Your task to perform on an android device: turn on wifi Image 0: 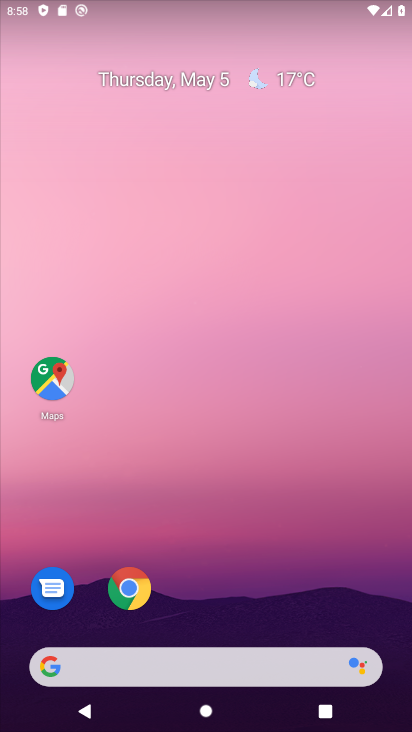
Step 0: drag from (225, 604) to (220, 276)
Your task to perform on an android device: turn on wifi Image 1: 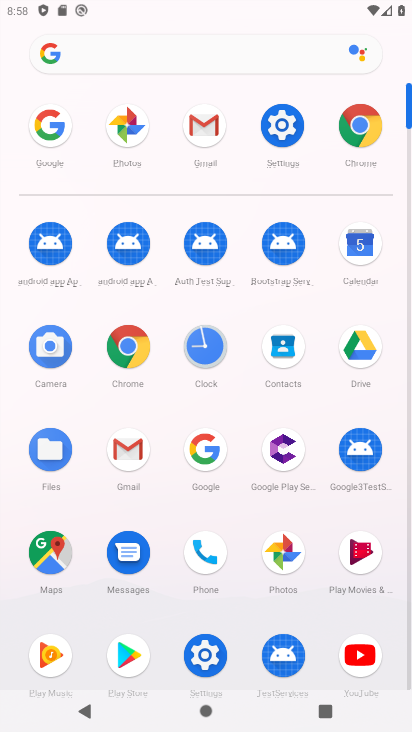
Step 1: click (279, 135)
Your task to perform on an android device: turn on wifi Image 2: 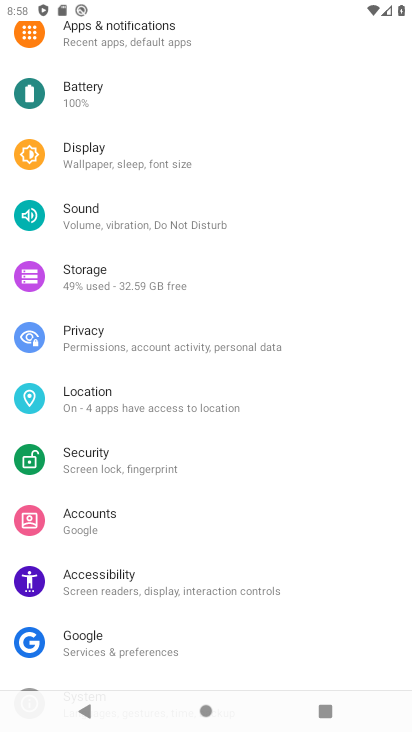
Step 2: drag from (132, 59) to (141, 438)
Your task to perform on an android device: turn on wifi Image 3: 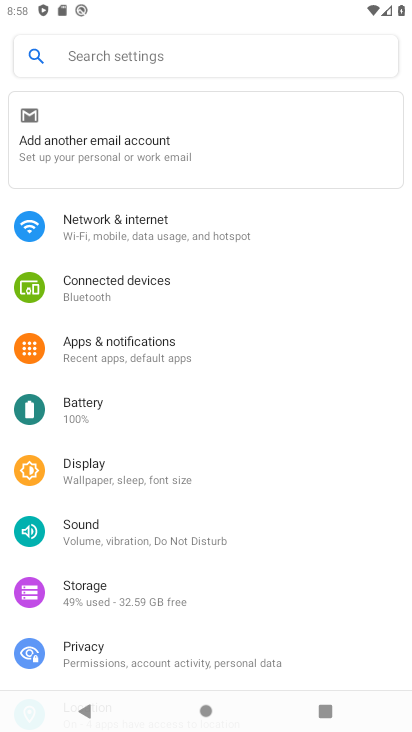
Step 3: click (134, 226)
Your task to perform on an android device: turn on wifi Image 4: 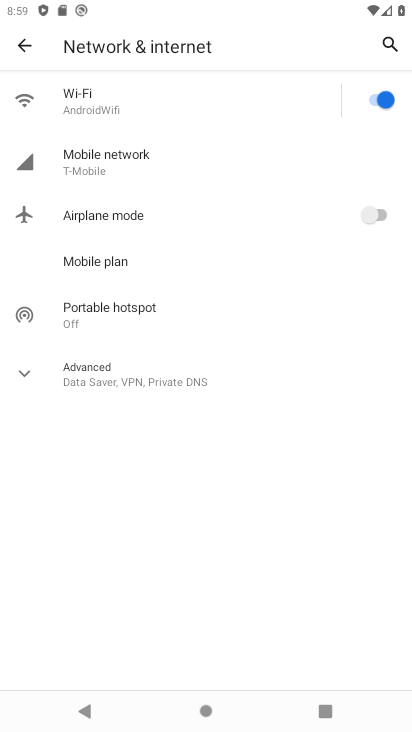
Step 4: task complete